Your task to perform on an android device: move an email to a new category in the gmail app Image 0: 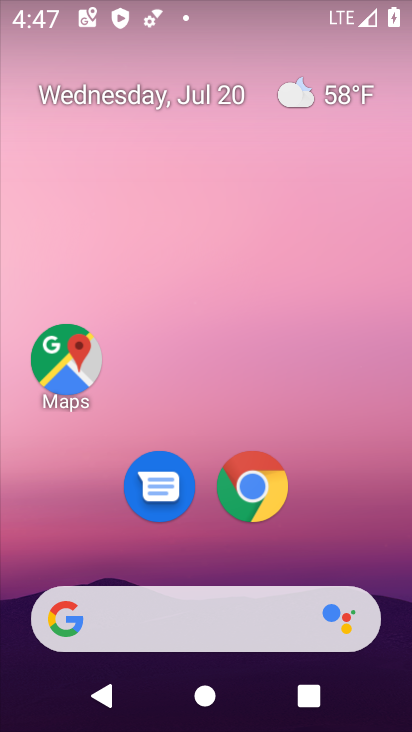
Step 0: drag from (198, 564) to (248, 0)
Your task to perform on an android device: move an email to a new category in the gmail app Image 1: 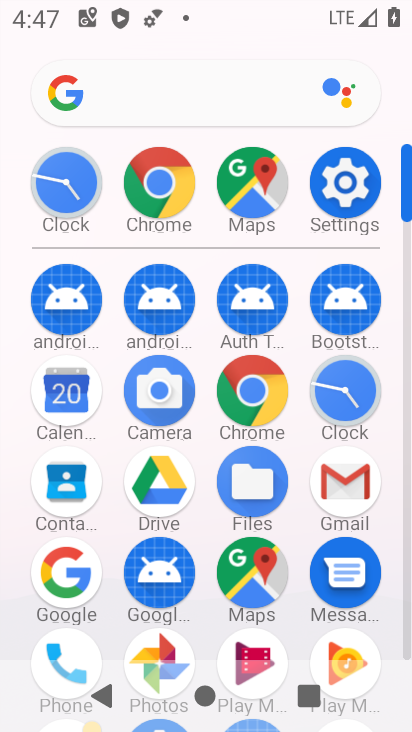
Step 1: click (349, 474)
Your task to perform on an android device: move an email to a new category in the gmail app Image 2: 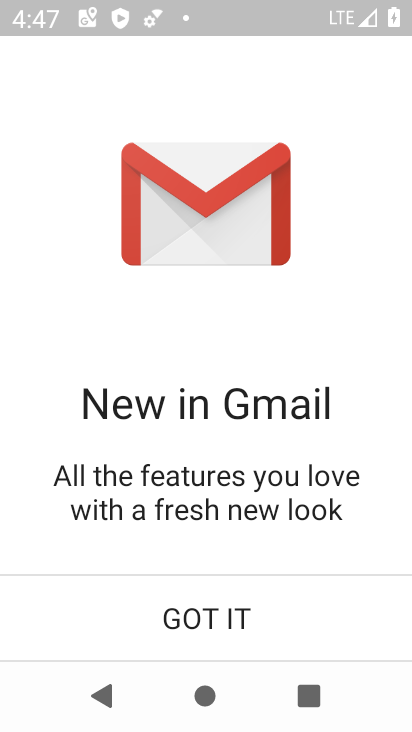
Step 2: click (196, 616)
Your task to perform on an android device: move an email to a new category in the gmail app Image 3: 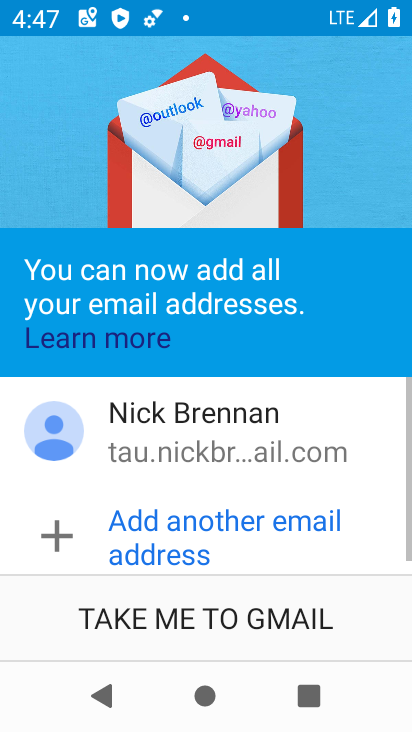
Step 3: click (161, 631)
Your task to perform on an android device: move an email to a new category in the gmail app Image 4: 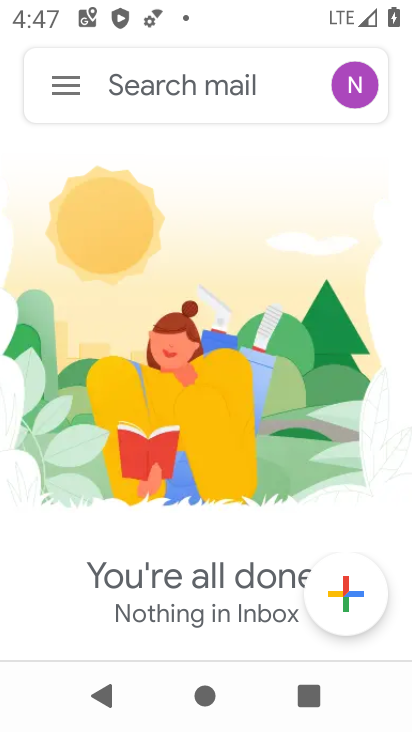
Step 4: click (52, 80)
Your task to perform on an android device: move an email to a new category in the gmail app Image 5: 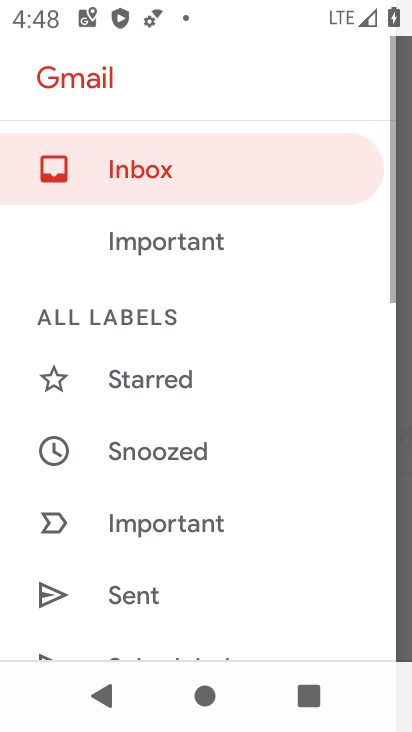
Step 5: drag from (150, 574) to (213, 106)
Your task to perform on an android device: move an email to a new category in the gmail app Image 6: 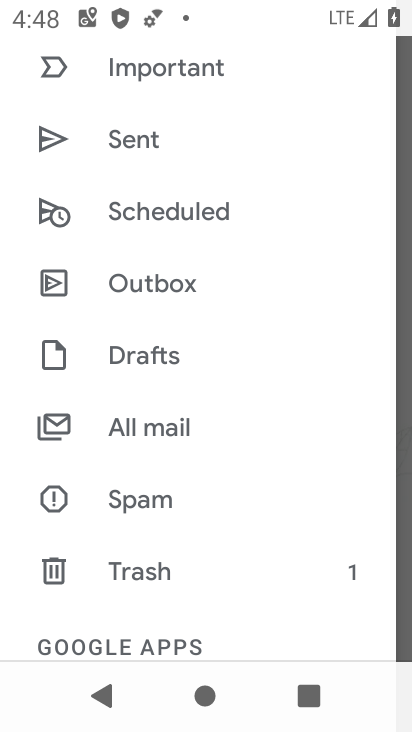
Step 6: click (121, 429)
Your task to perform on an android device: move an email to a new category in the gmail app Image 7: 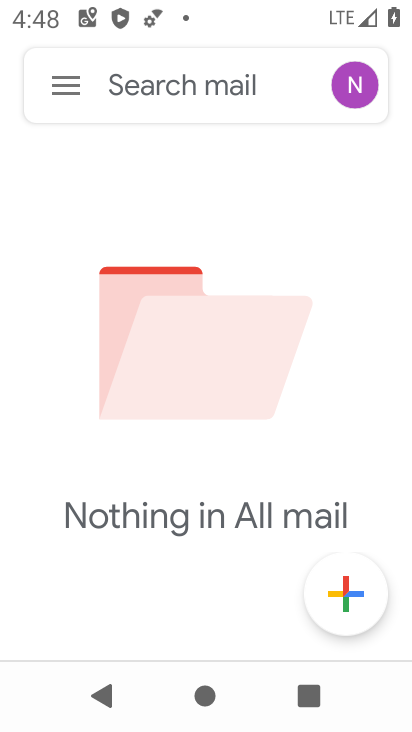
Step 7: task complete